Your task to perform on an android device: Open battery settings Image 0: 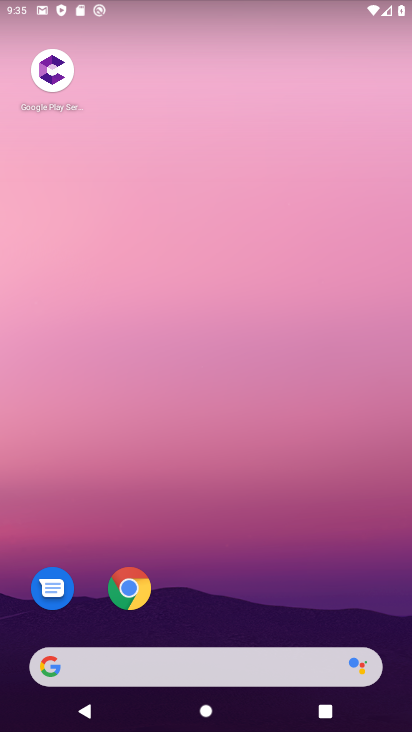
Step 0: drag from (206, 584) to (192, 3)
Your task to perform on an android device: Open battery settings Image 1: 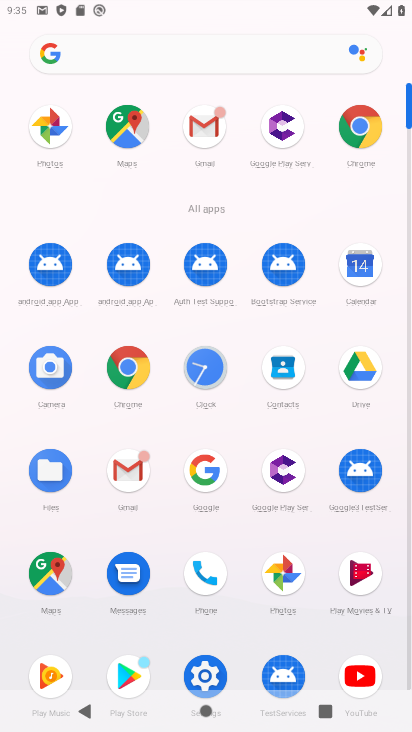
Step 1: click (204, 667)
Your task to perform on an android device: Open battery settings Image 2: 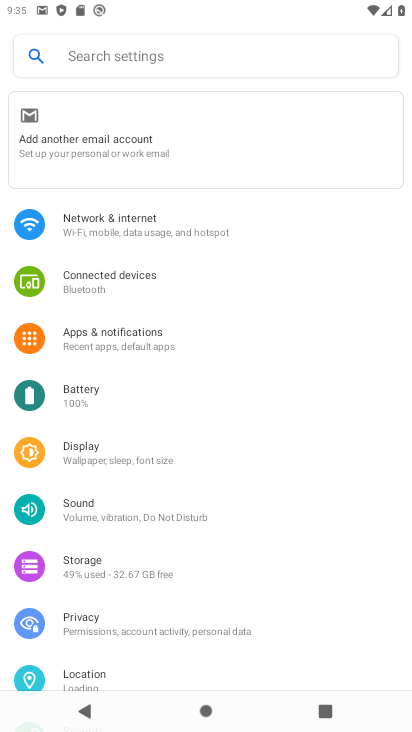
Step 2: click (89, 404)
Your task to perform on an android device: Open battery settings Image 3: 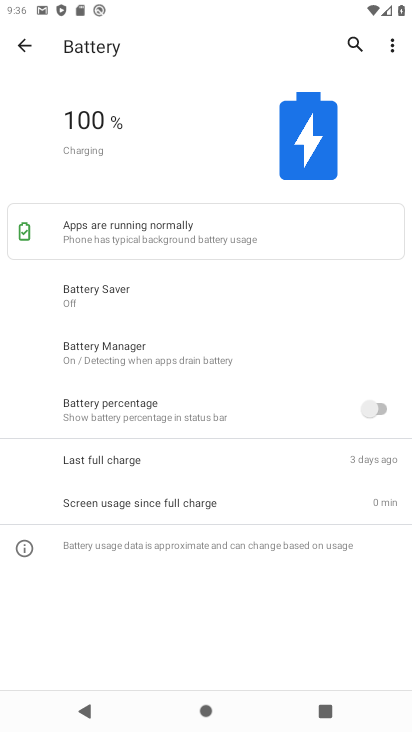
Step 3: task complete